Your task to perform on an android device: When is my next meeting? Image 0: 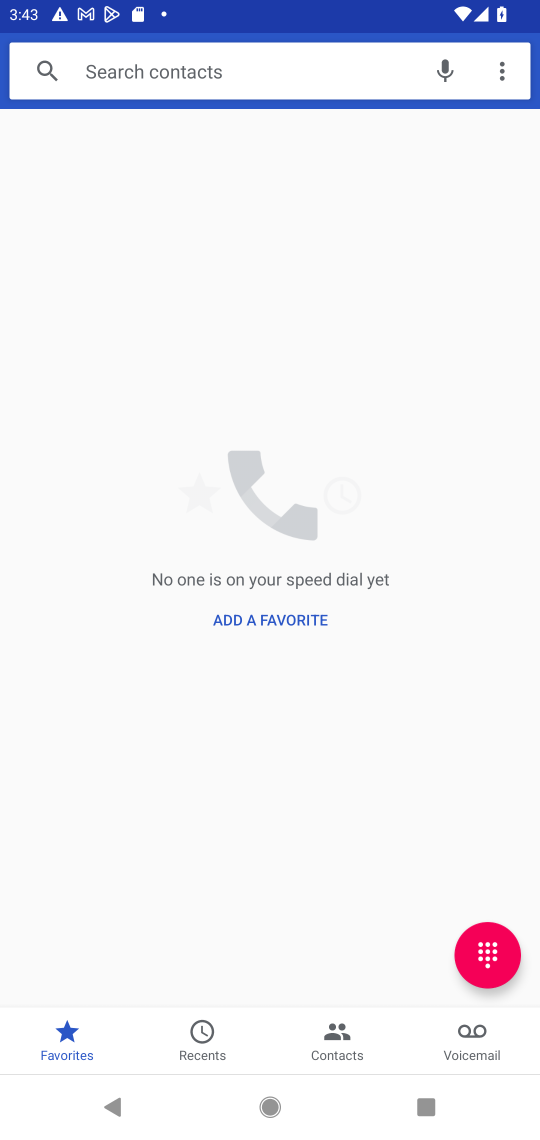
Step 0: press home button
Your task to perform on an android device: When is my next meeting? Image 1: 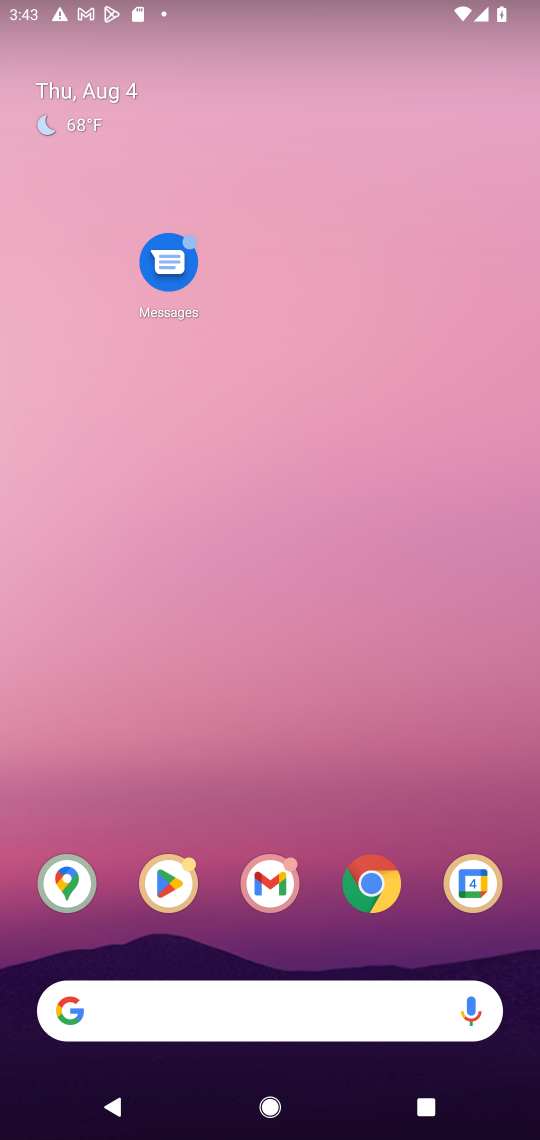
Step 1: drag from (220, 960) to (244, 82)
Your task to perform on an android device: When is my next meeting? Image 2: 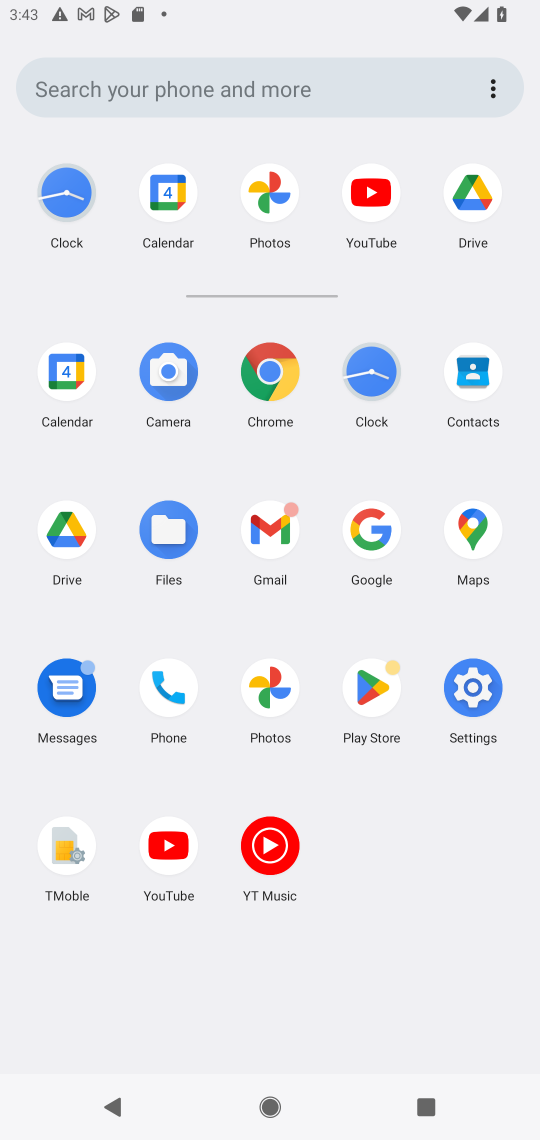
Step 2: click (62, 377)
Your task to perform on an android device: When is my next meeting? Image 3: 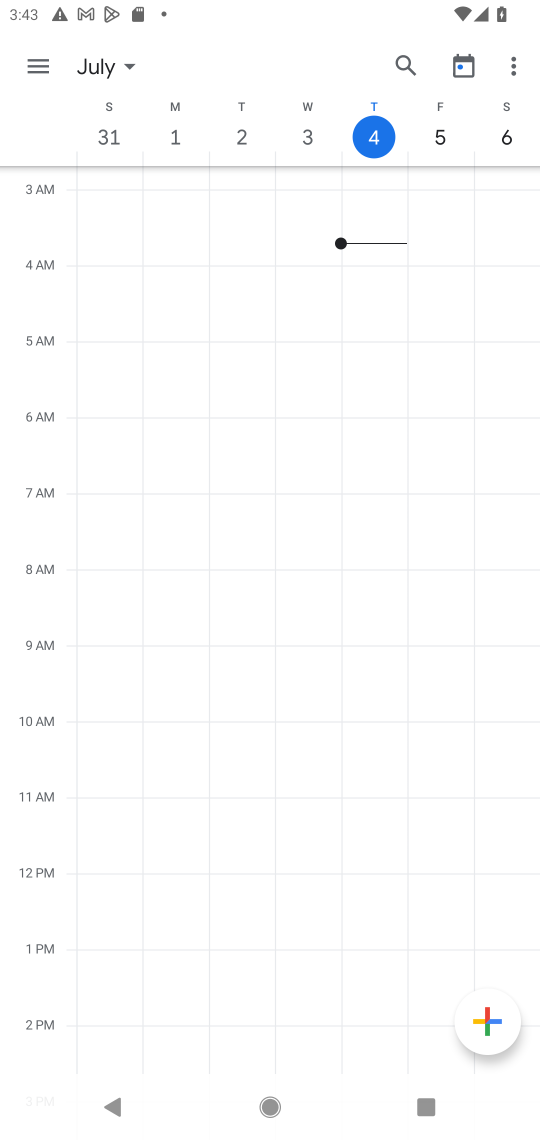
Step 3: click (435, 135)
Your task to perform on an android device: When is my next meeting? Image 4: 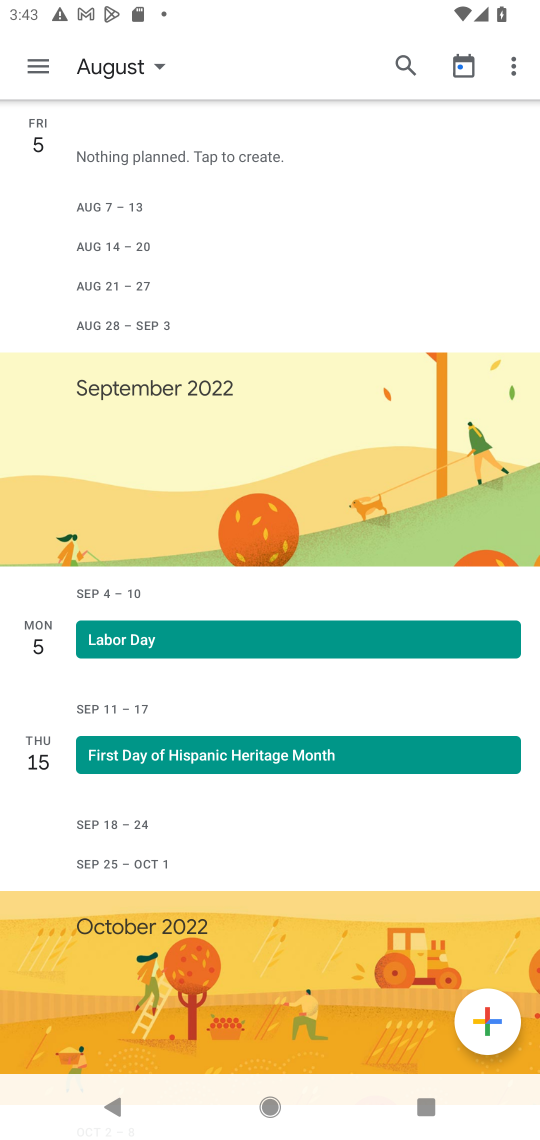
Step 4: task complete